Your task to perform on an android device: open chrome and create a bookmark for the current page Image 0: 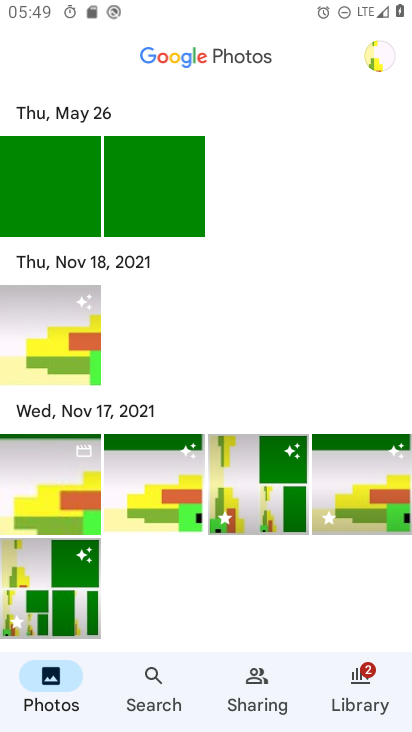
Step 0: press home button
Your task to perform on an android device: open chrome and create a bookmark for the current page Image 1: 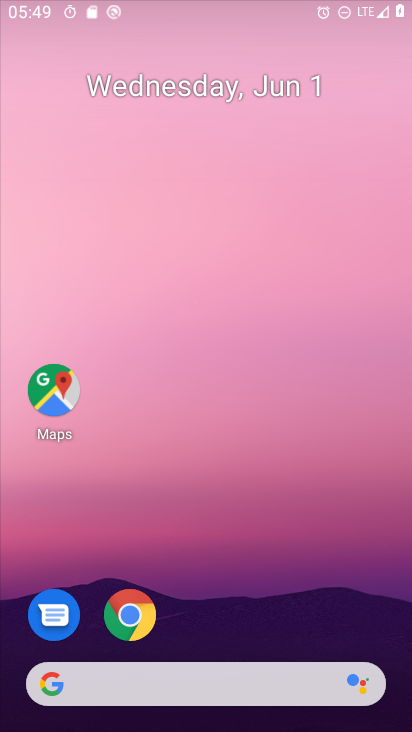
Step 1: drag from (221, 624) to (254, 63)
Your task to perform on an android device: open chrome and create a bookmark for the current page Image 2: 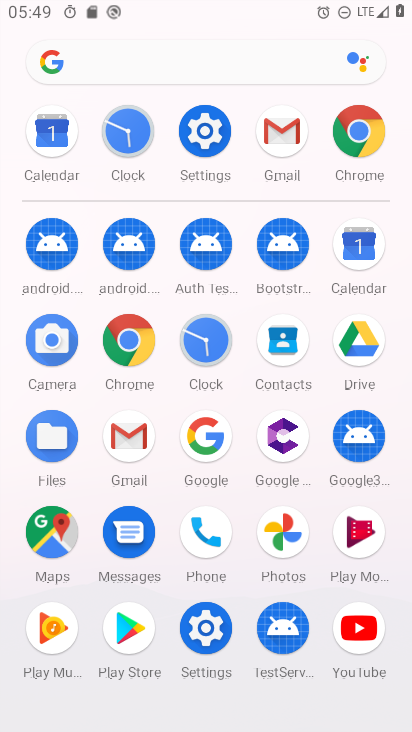
Step 2: click (137, 355)
Your task to perform on an android device: open chrome and create a bookmark for the current page Image 3: 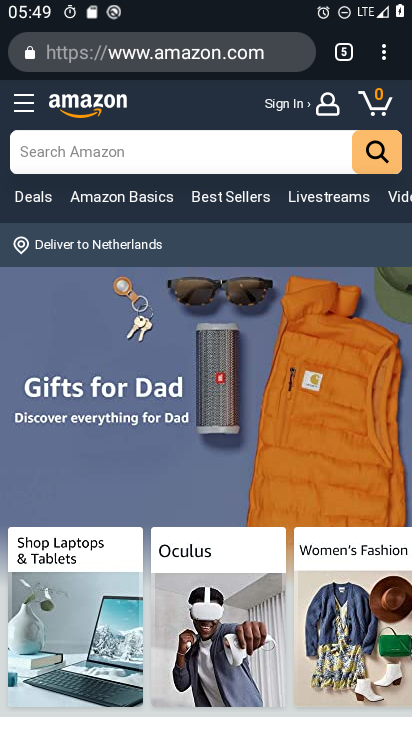
Step 3: task complete